Your task to perform on an android device: toggle location history Image 0: 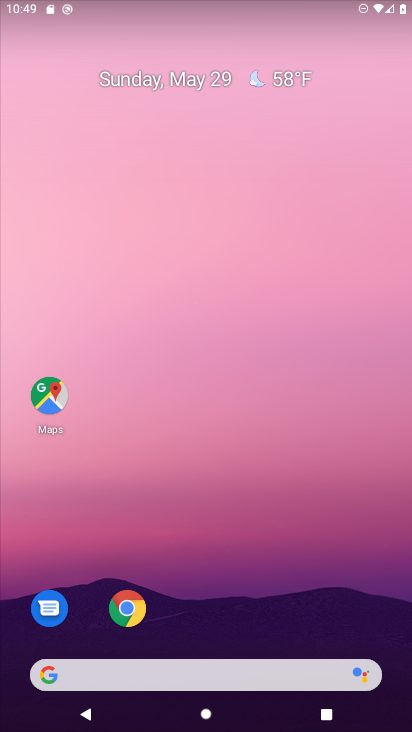
Step 0: drag from (256, 601) to (259, 233)
Your task to perform on an android device: toggle location history Image 1: 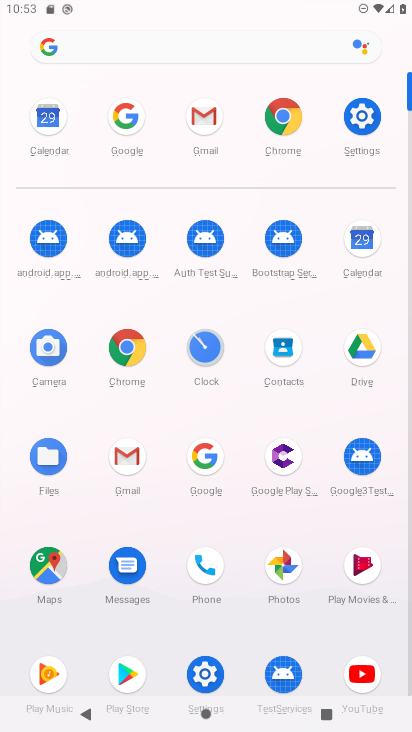
Step 1: click (205, 654)
Your task to perform on an android device: toggle location history Image 2: 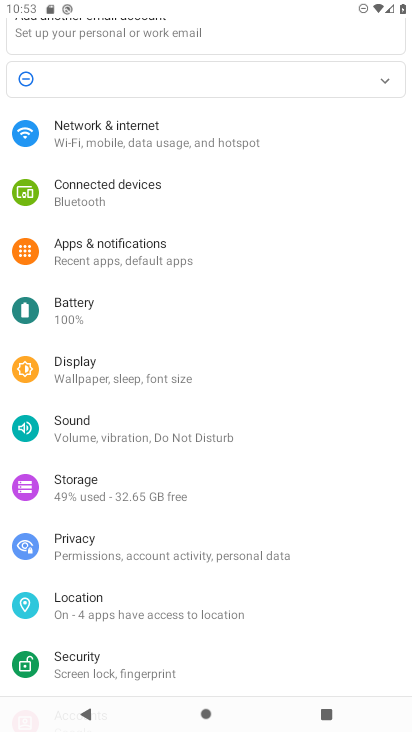
Step 2: click (131, 612)
Your task to perform on an android device: toggle location history Image 3: 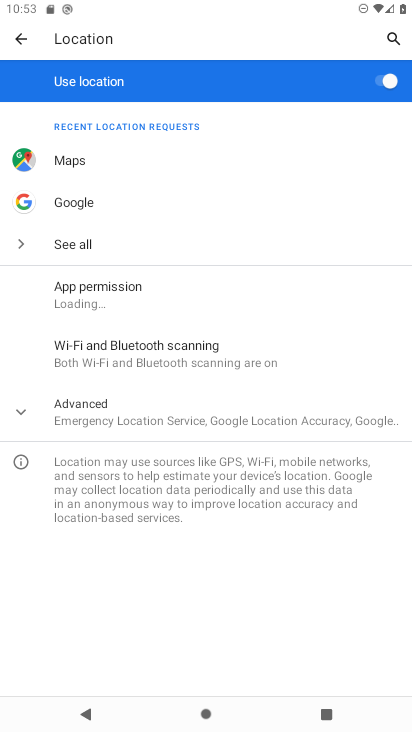
Step 3: click (128, 417)
Your task to perform on an android device: toggle location history Image 4: 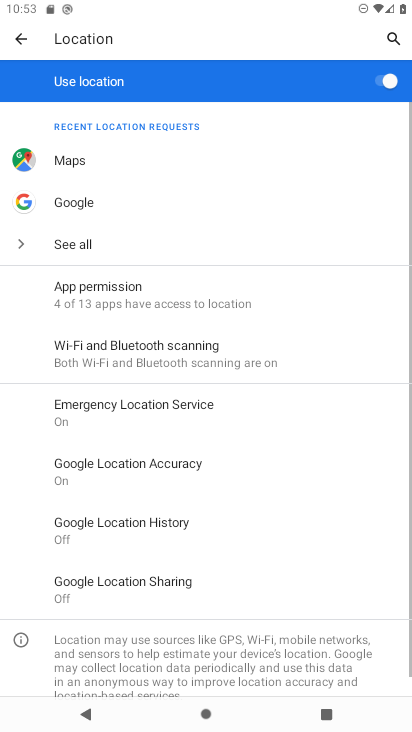
Step 4: click (136, 524)
Your task to perform on an android device: toggle location history Image 5: 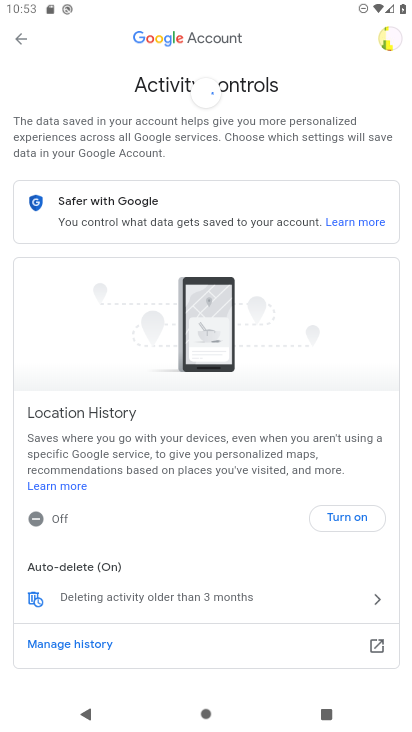
Step 5: click (333, 515)
Your task to perform on an android device: toggle location history Image 6: 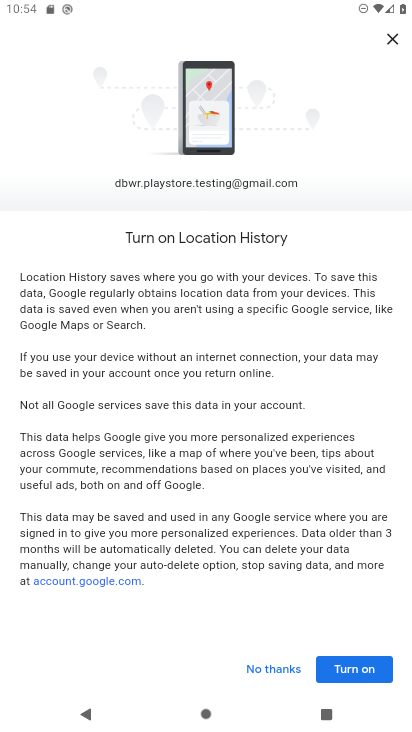
Step 6: click (379, 667)
Your task to perform on an android device: toggle location history Image 7: 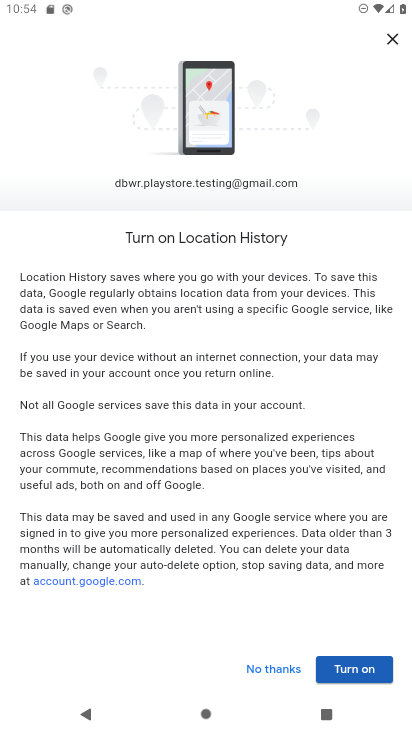
Step 7: click (368, 676)
Your task to perform on an android device: toggle location history Image 8: 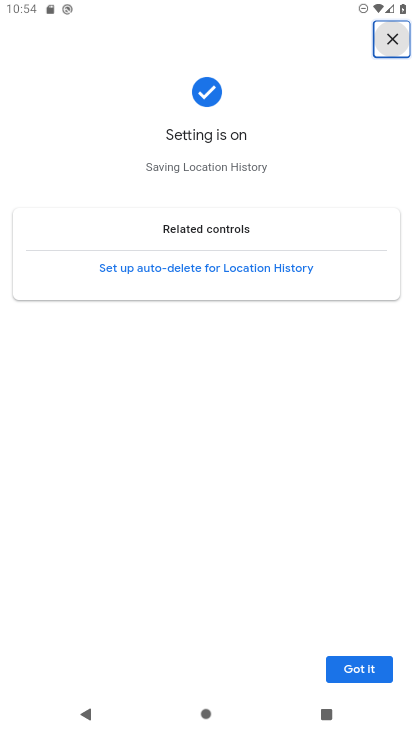
Step 8: task complete